Your task to perform on an android device: check storage Image 0: 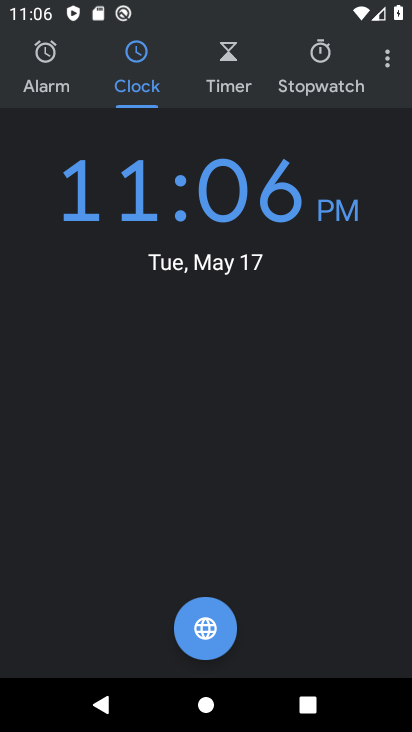
Step 0: press home button
Your task to perform on an android device: check storage Image 1: 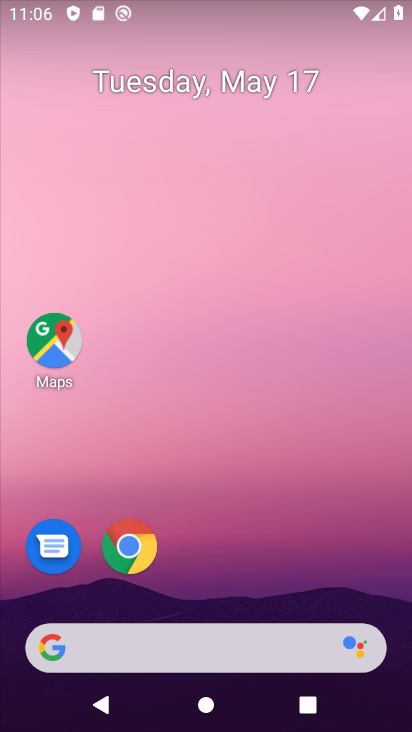
Step 1: drag from (231, 596) to (223, 142)
Your task to perform on an android device: check storage Image 2: 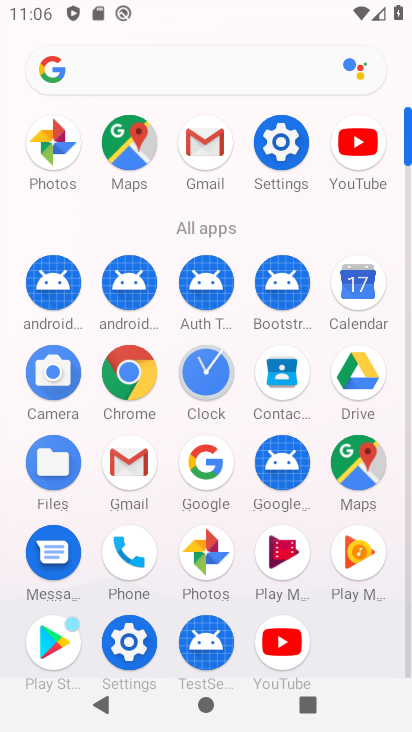
Step 2: click (279, 142)
Your task to perform on an android device: check storage Image 3: 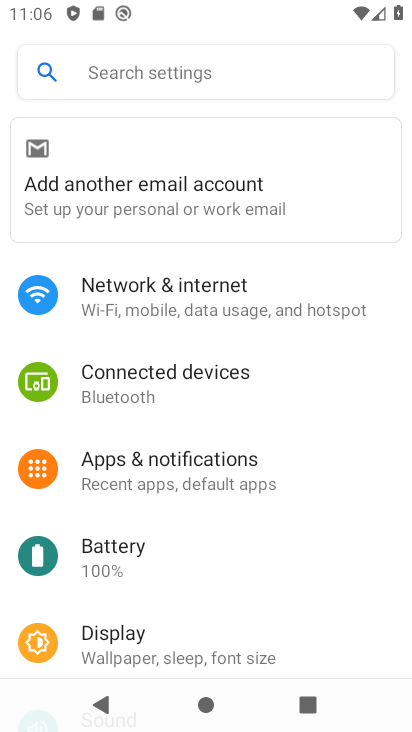
Step 3: drag from (265, 605) to (204, 267)
Your task to perform on an android device: check storage Image 4: 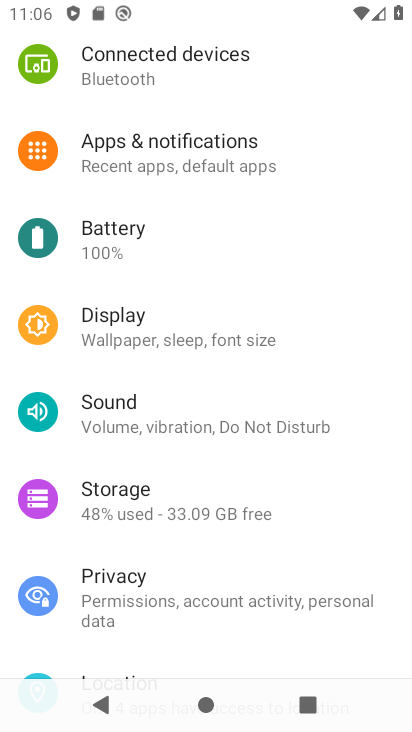
Step 4: click (229, 519)
Your task to perform on an android device: check storage Image 5: 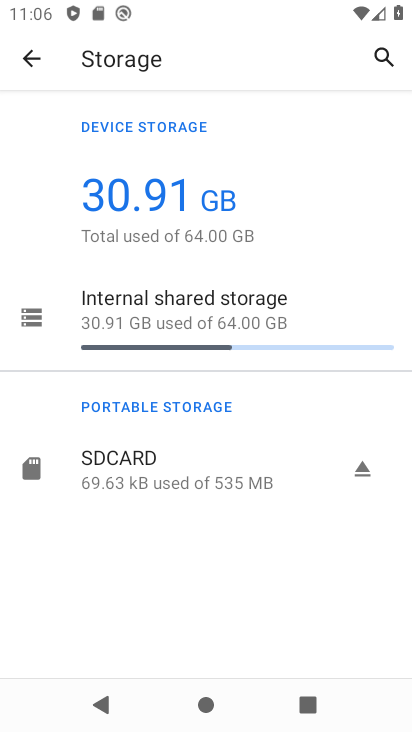
Step 5: task complete